Your task to perform on an android device: snooze an email in the gmail app Image 0: 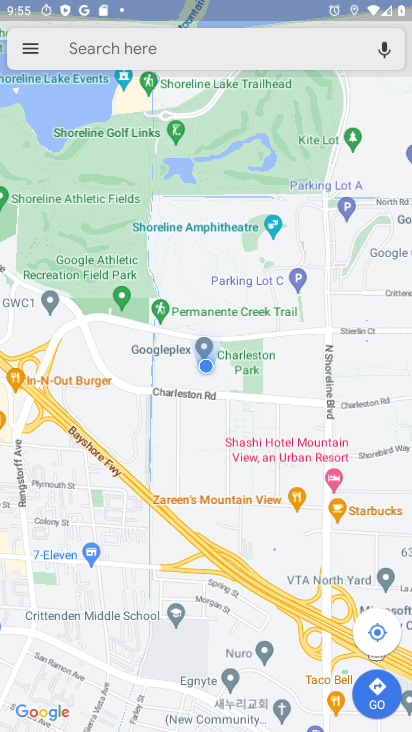
Step 0: press home button
Your task to perform on an android device: snooze an email in the gmail app Image 1: 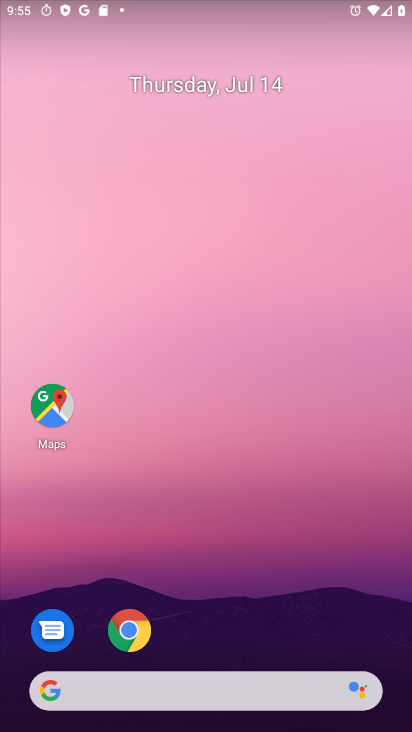
Step 1: drag from (25, 705) to (246, 114)
Your task to perform on an android device: snooze an email in the gmail app Image 2: 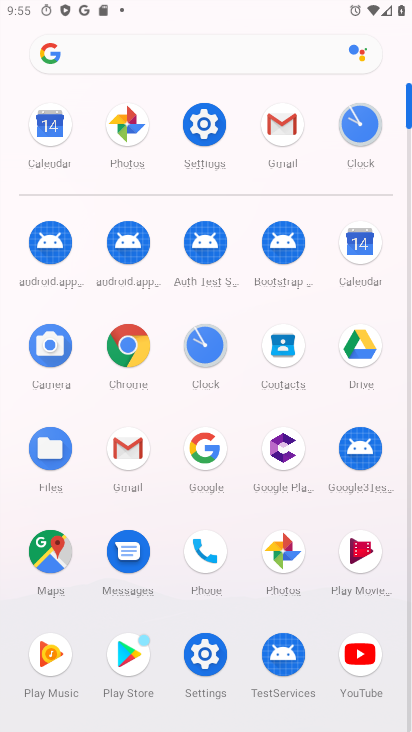
Step 2: click (122, 454)
Your task to perform on an android device: snooze an email in the gmail app Image 3: 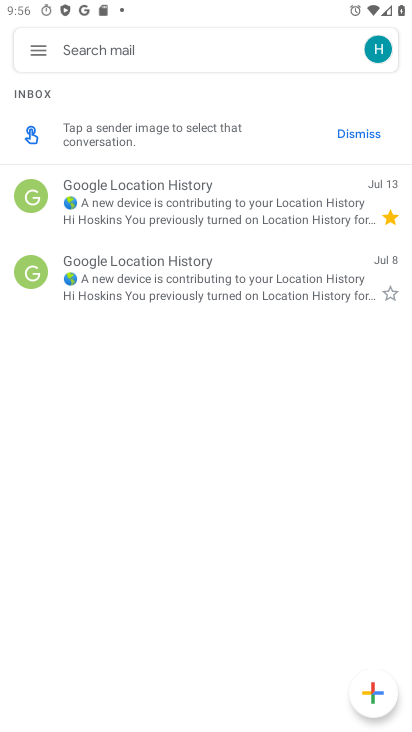
Step 3: click (39, 47)
Your task to perform on an android device: snooze an email in the gmail app Image 4: 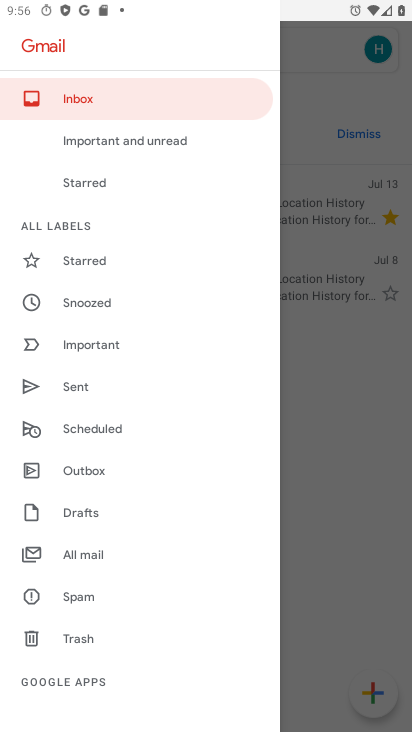
Step 4: click (98, 304)
Your task to perform on an android device: snooze an email in the gmail app Image 5: 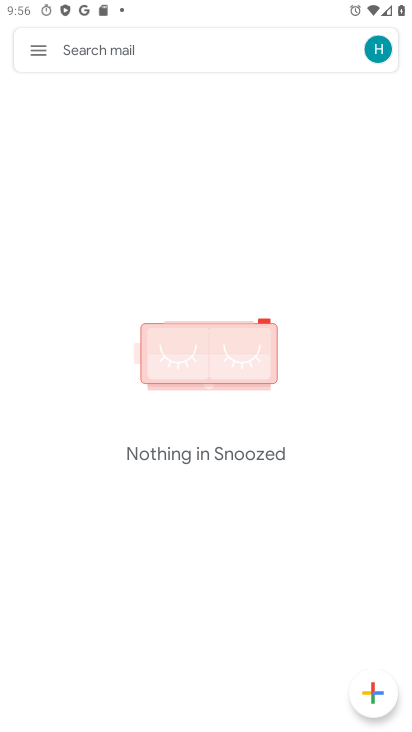
Step 5: task complete